Your task to perform on an android device: Open maps Image 0: 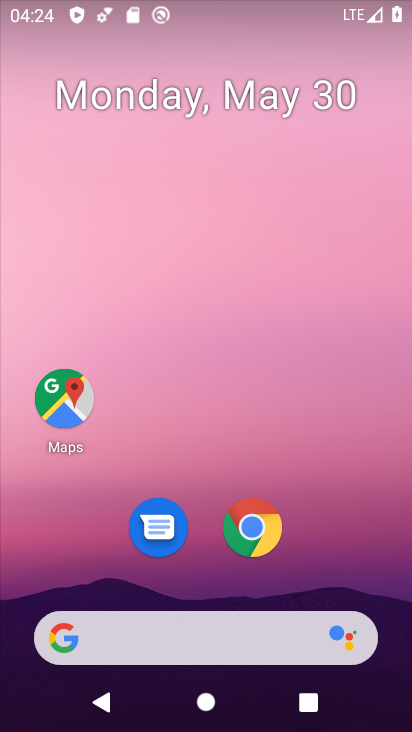
Step 0: drag from (240, 710) to (246, 2)
Your task to perform on an android device: Open maps Image 1: 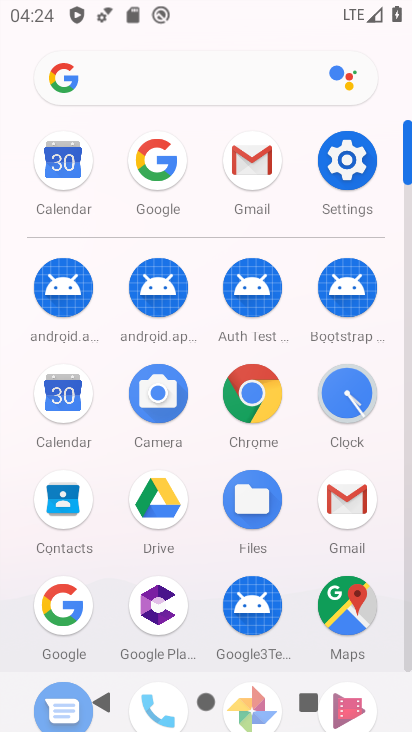
Step 1: click (336, 596)
Your task to perform on an android device: Open maps Image 2: 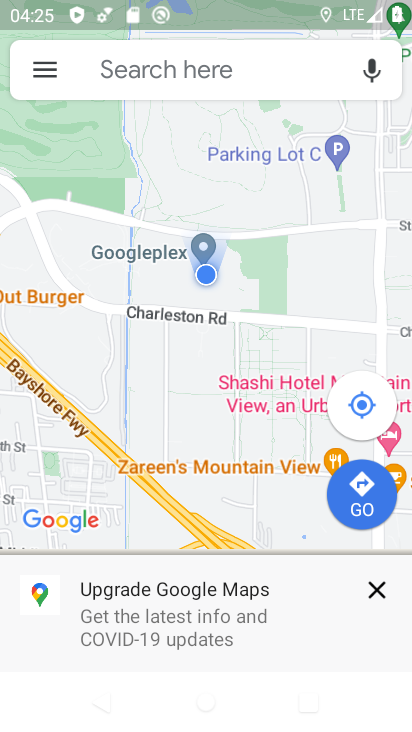
Step 2: task complete